Your task to perform on an android device: When is my next meeting? Image 0: 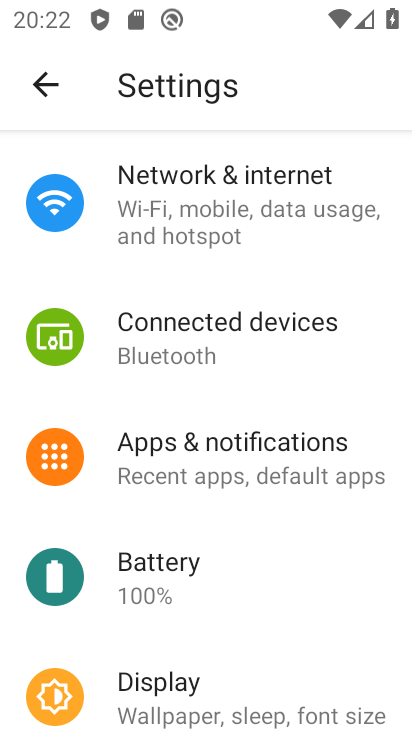
Step 0: press home button
Your task to perform on an android device: When is my next meeting? Image 1: 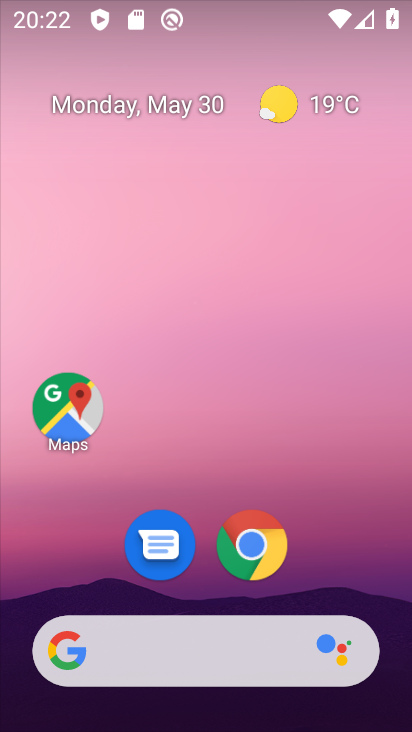
Step 1: click (166, 98)
Your task to perform on an android device: When is my next meeting? Image 2: 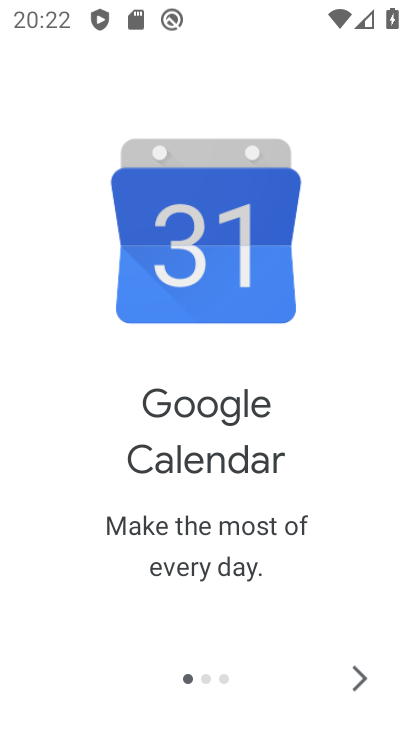
Step 2: click (357, 667)
Your task to perform on an android device: When is my next meeting? Image 3: 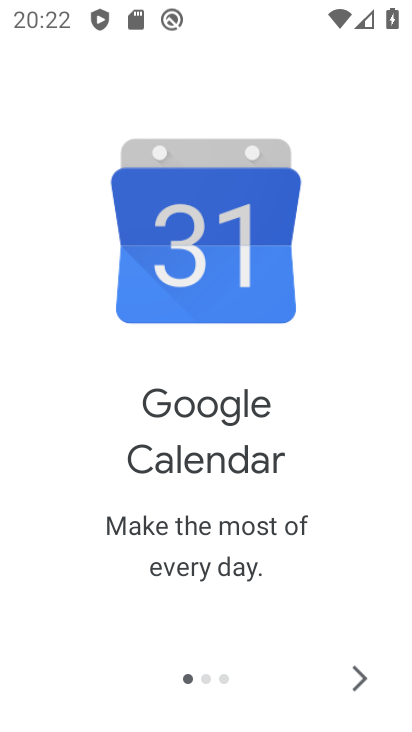
Step 3: click (357, 667)
Your task to perform on an android device: When is my next meeting? Image 4: 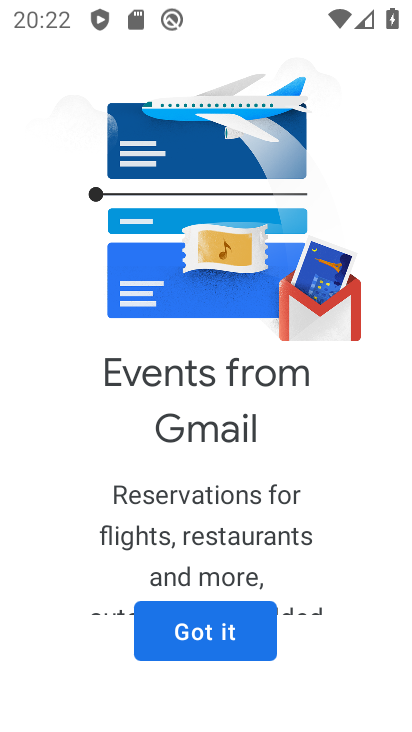
Step 4: click (227, 633)
Your task to perform on an android device: When is my next meeting? Image 5: 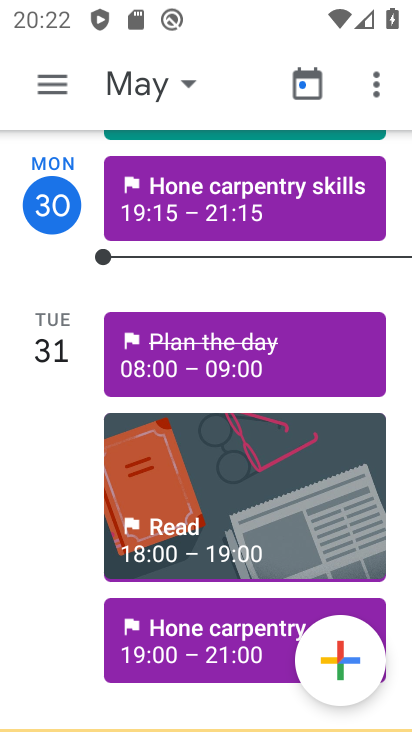
Step 5: drag from (275, 274) to (263, 131)
Your task to perform on an android device: When is my next meeting? Image 6: 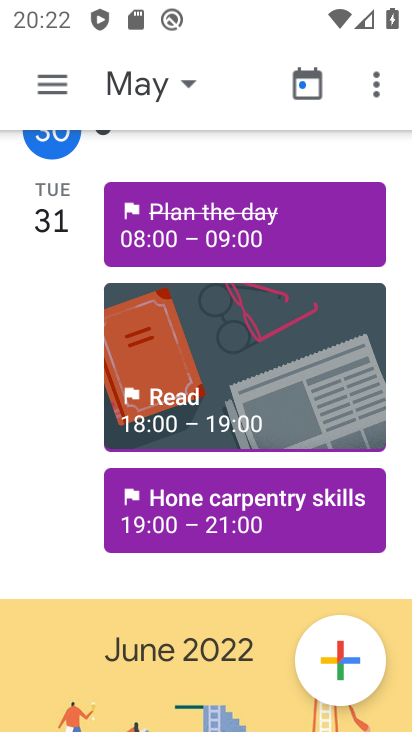
Step 6: click (70, 301)
Your task to perform on an android device: When is my next meeting? Image 7: 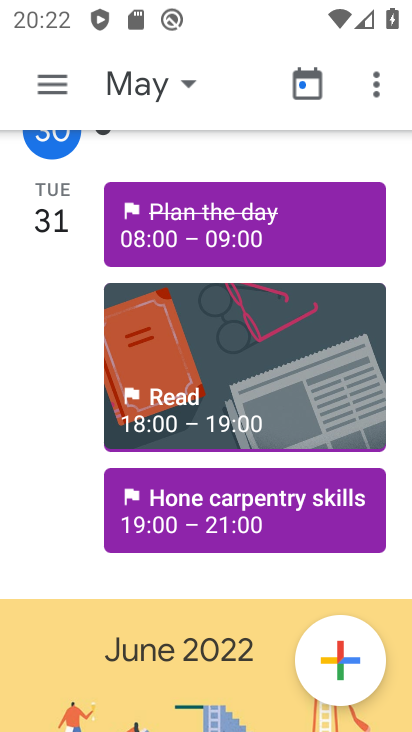
Step 7: click (281, 411)
Your task to perform on an android device: When is my next meeting? Image 8: 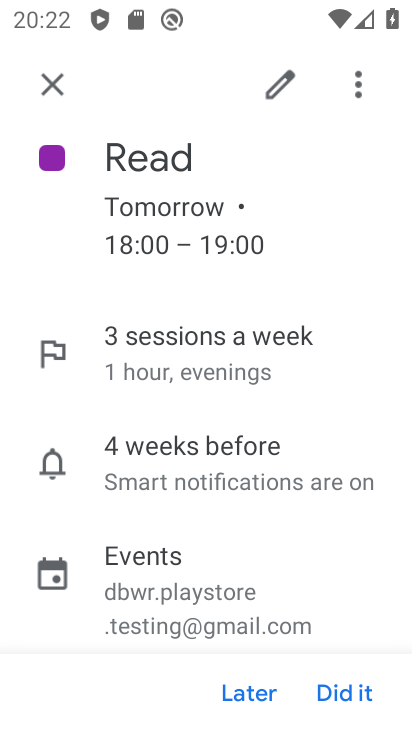
Step 8: task complete